Your task to perform on an android device: change the clock style Image 0: 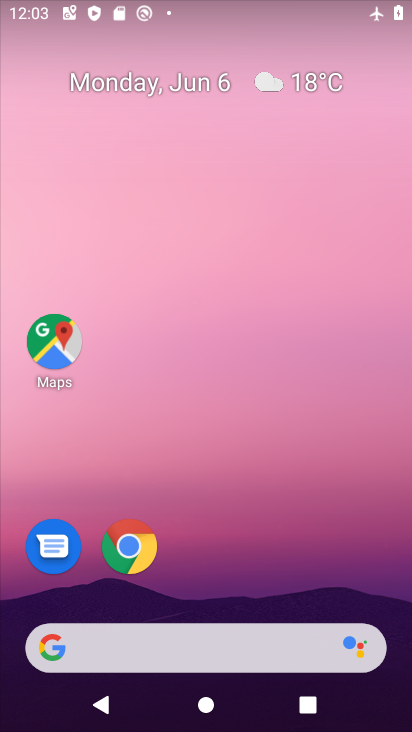
Step 0: drag from (252, 561) to (208, 156)
Your task to perform on an android device: change the clock style Image 1: 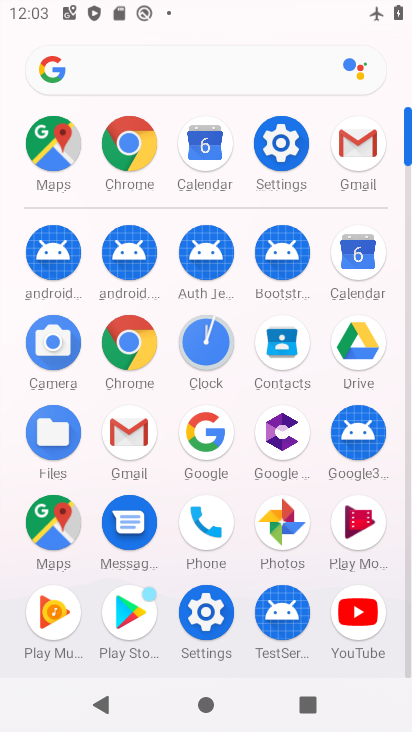
Step 1: click (191, 337)
Your task to perform on an android device: change the clock style Image 2: 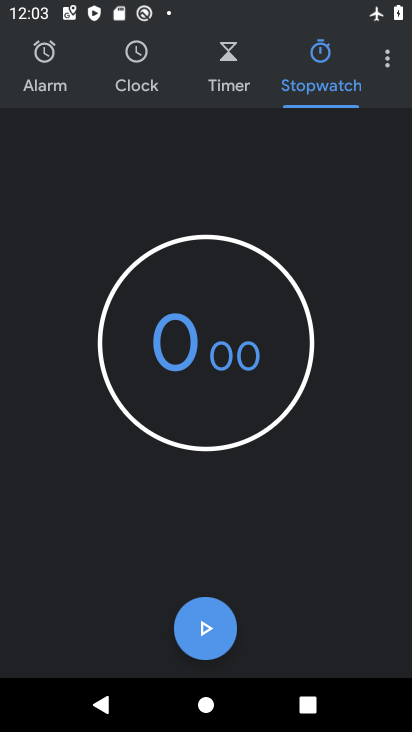
Step 2: click (384, 60)
Your task to perform on an android device: change the clock style Image 3: 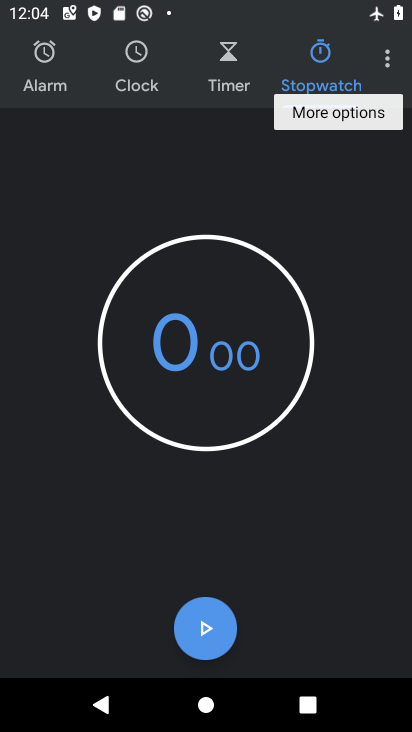
Step 3: click (387, 57)
Your task to perform on an android device: change the clock style Image 4: 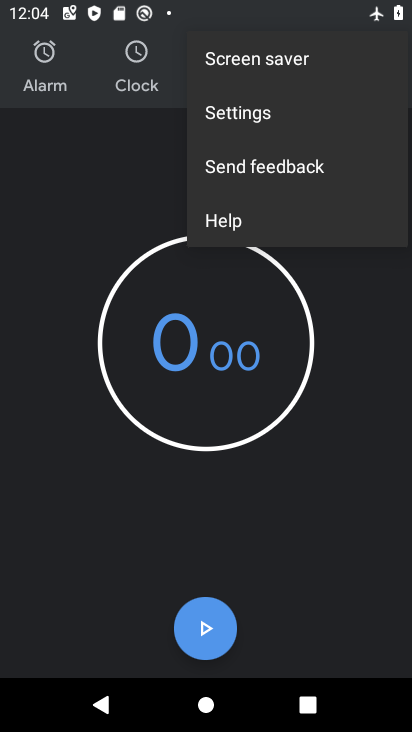
Step 4: click (217, 110)
Your task to perform on an android device: change the clock style Image 5: 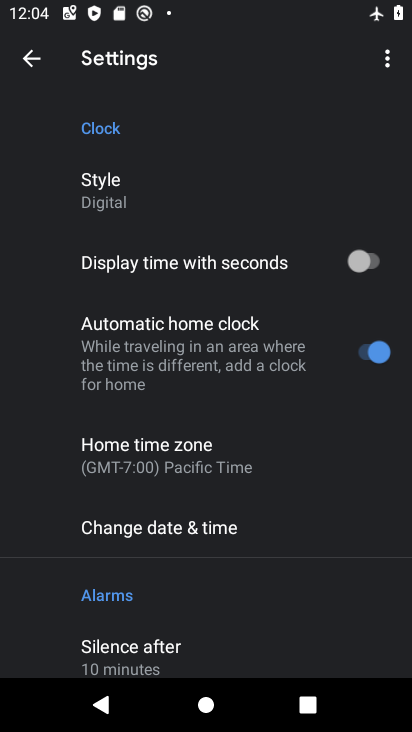
Step 5: click (128, 195)
Your task to perform on an android device: change the clock style Image 6: 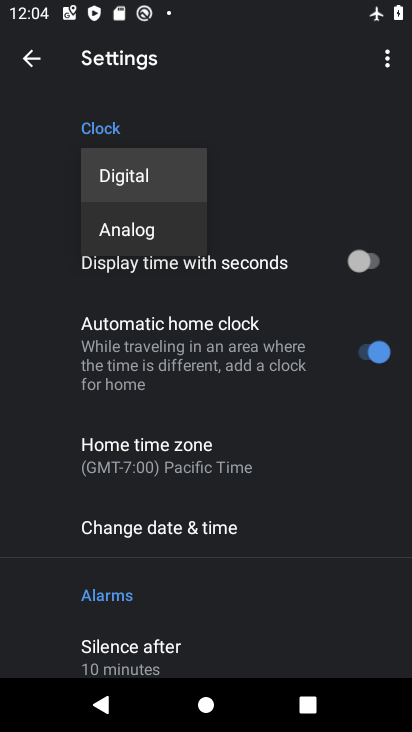
Step 6: click (133, 234)
Your task to perform on an android device: change the clock style Image 7: 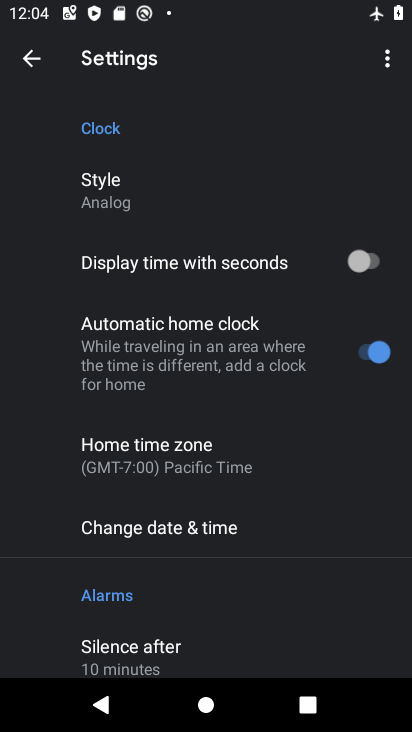
Step 7: task complete